Your task to perform on an android device: Check the news Image 0: 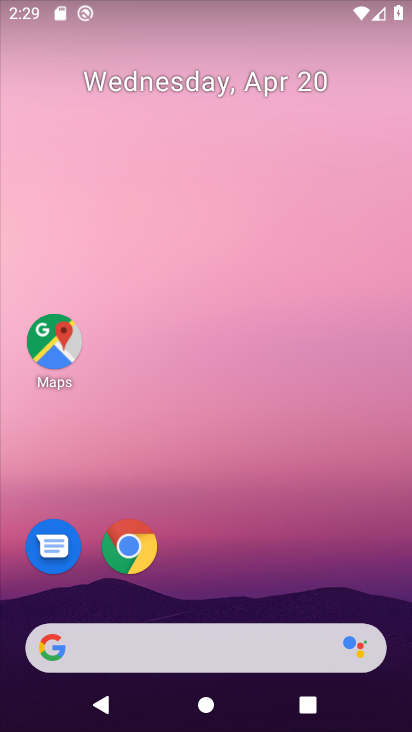
Step 0: drag from (245, 338) to (253, 291)
Your task to perform on an android device: Check the news Image 1: 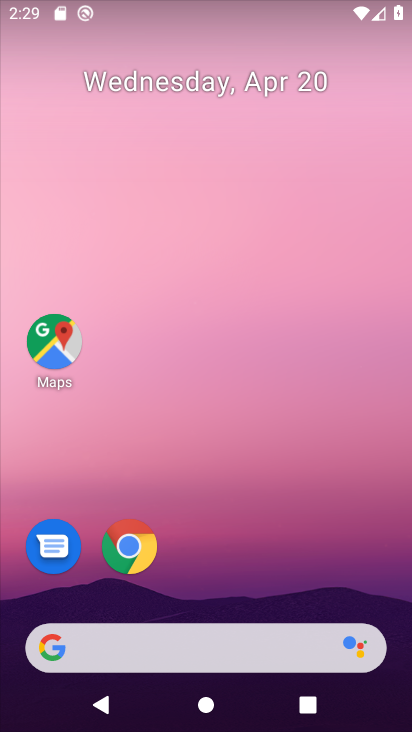
Step 1: drag from (218, 580) to (243, 257)
Your task to perform on an android device: Check the news Image 2: 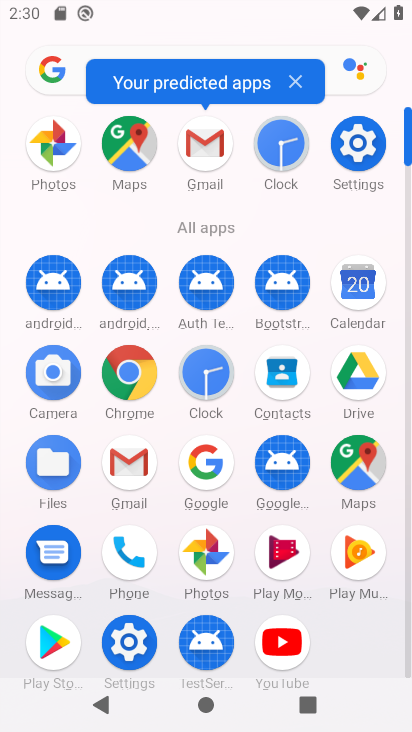
Step 2: click (133, 381)
Your task to perform on an android device: Check the news Image 3: 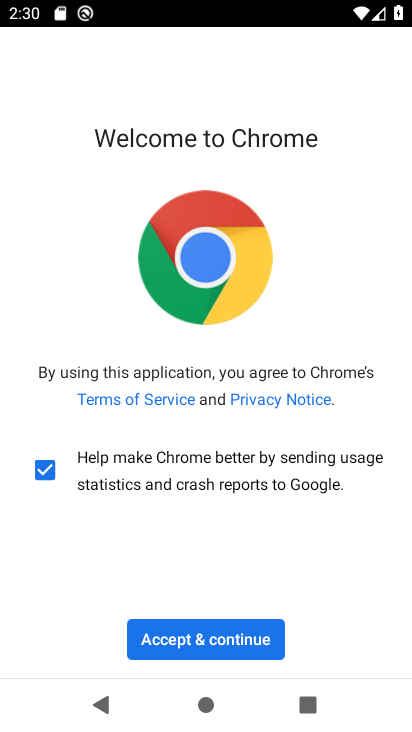
Step 3: click (230, 643)
Your task to perform on an android device: Check the news Image 4: 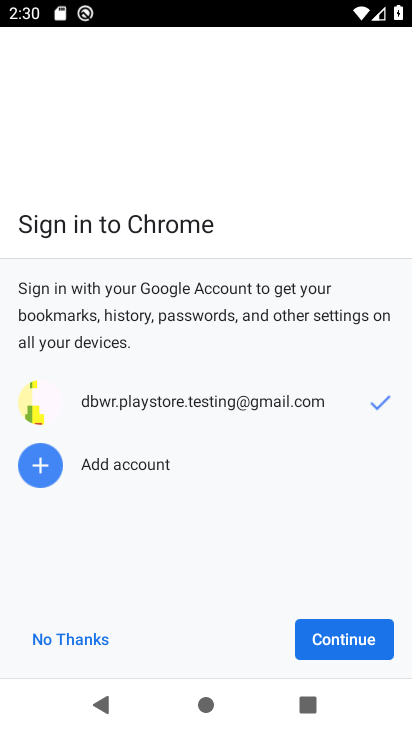
Step 4: click (354, 635)
Your task to perform on an android device: Check the news Image 5: 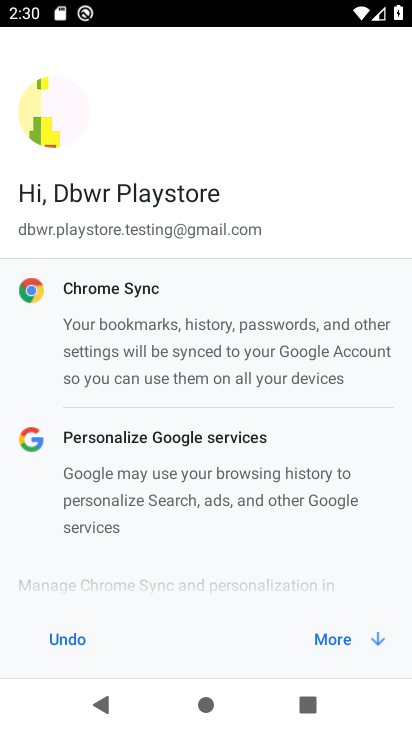
Step 5: click (354, 635)
Your task to perform on an android device: Check the news Image 6: 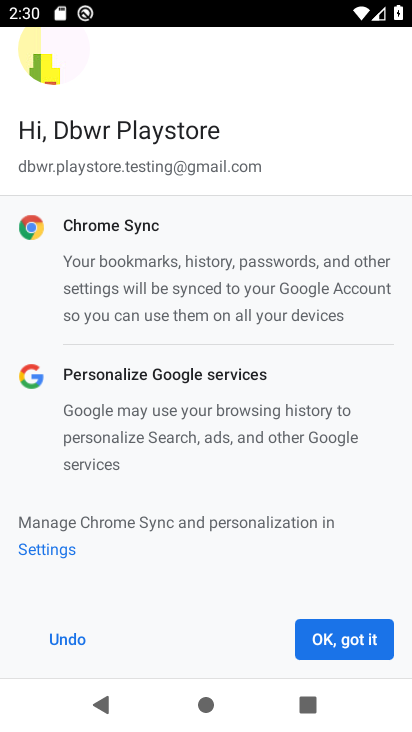
Step 6: click (348, 647)
Your task to perform on an android device: Check the news Image 7: 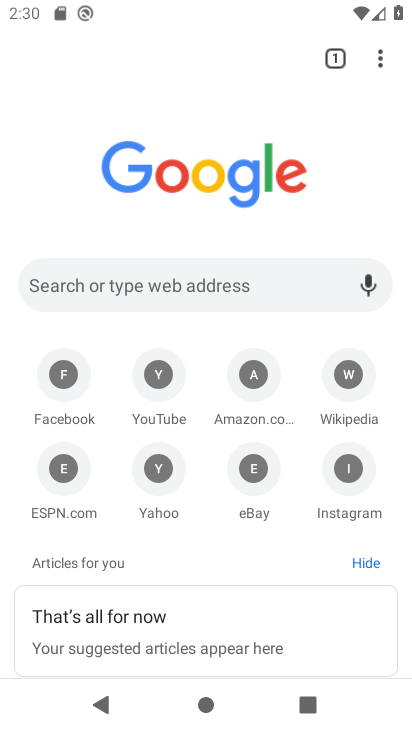
Step 7: click (259, 273)
Your task to perform on an android device: Check the news Image 8: 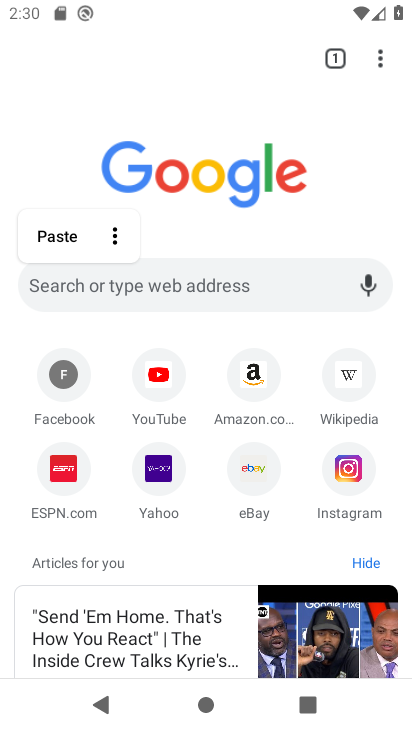
Step 8: click (287, 285)
Your task to perform on an android device: Check the news Image 9: 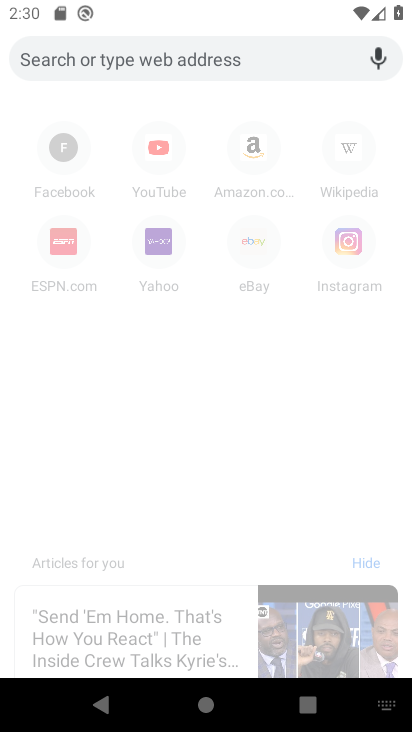
Step 9: type "Check the news"
Your task to perform on an android device: Check the news Image 10: 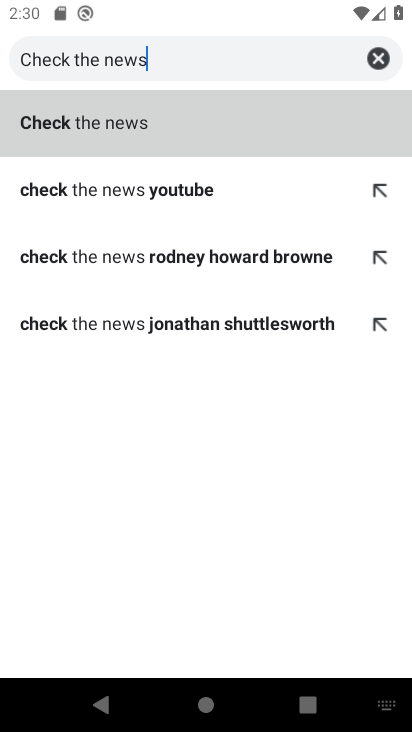
Step 10: click (116, 123)
Your task to perform on an android device: Check the news Image 11: 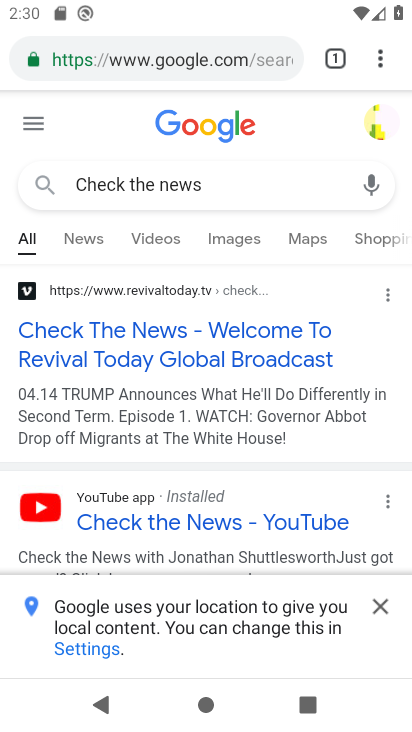
Step 11: click (376, 605)
Your task to perform on an android device: Check the news Image 12: 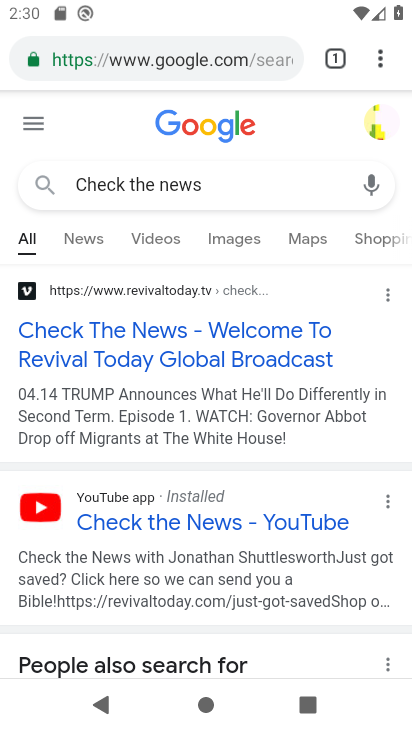
Step 12: task complete